Your task to perform on an android device: Show me some nice wallpapers for my laptop Image 0: 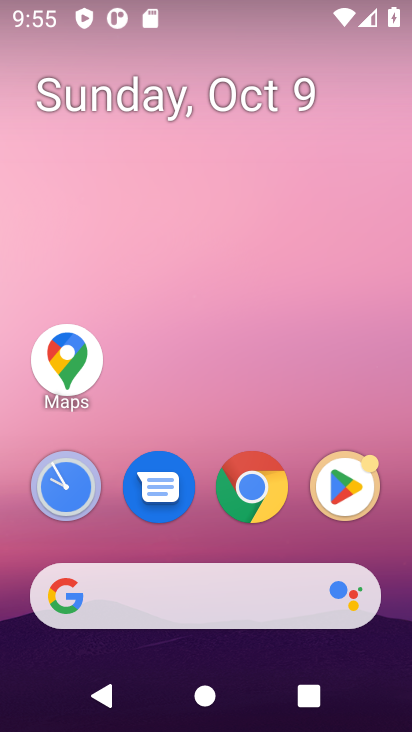
Step 0: drag from (214, 543) to (227, 1)
Your task to perform on an android device: Show me some nice wallpapers for my laptop Image 1: 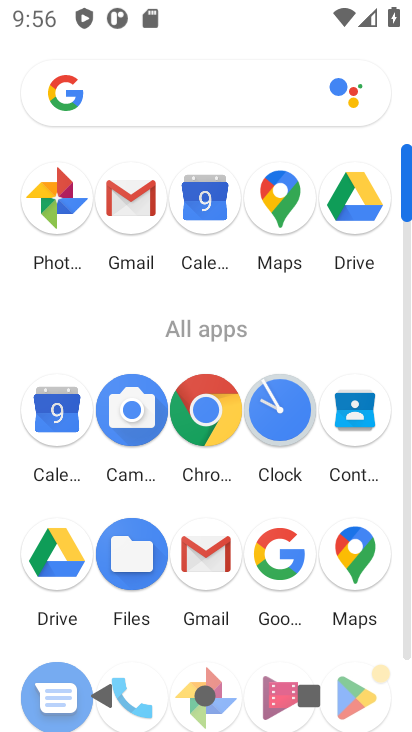
Step 1: click (199, 410)
Your task to perform on an android device: Show me some nice wallpapers for my laptop Image 2: 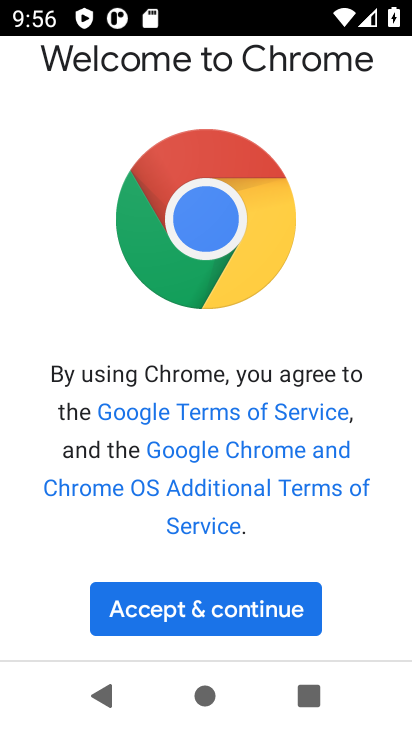
Step 2: click (210, 613)
Your task to perform on an android device: Show me some nice wallpapers for my laptop Image 3: 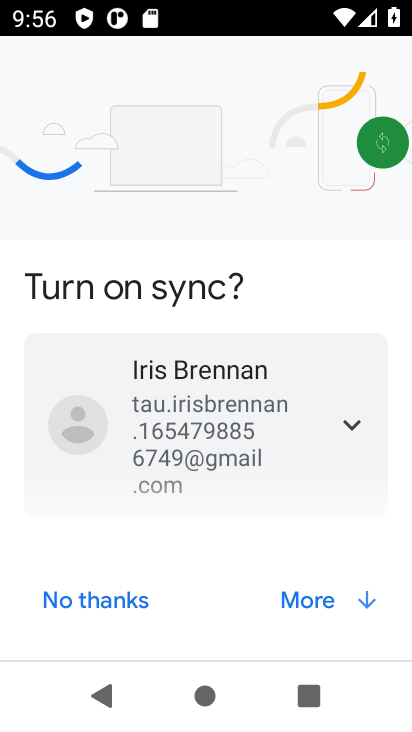
Step 3: click (311, 595)
Your task to perform on an android device: Show me some nice wallpapers for my laptop Image 4: 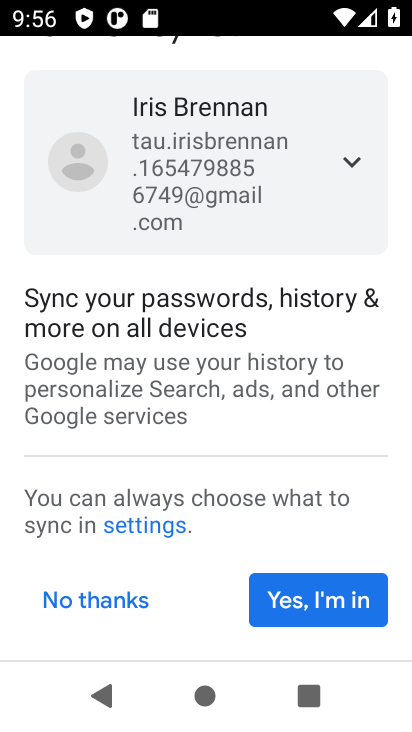
Step 4: click (310, 604)
Your task to perform on an android device: Show me some nice wallpapers for my laptop Image 5: 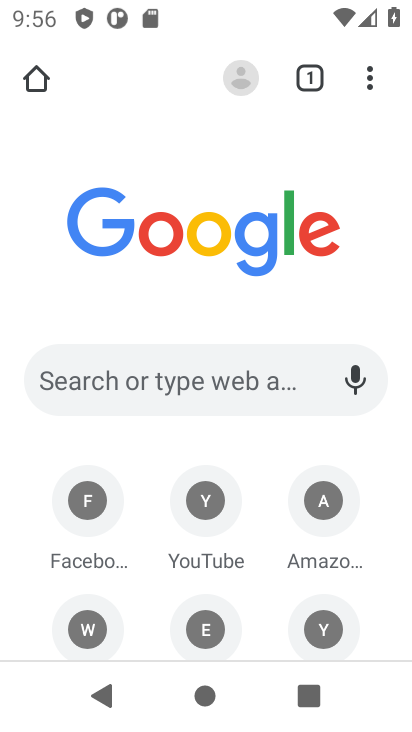
Step 5: click (179, 387)
Your task to perform on an android device: Show me some nice wallpapers for my laptop Image 6: 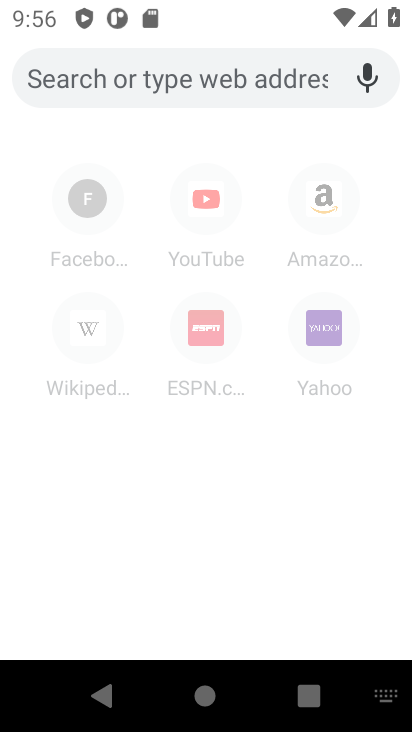
Step 6: click (218, 69)
Your task to perform on an android device: Show me some nice wallpapers for my laptop Image 7: 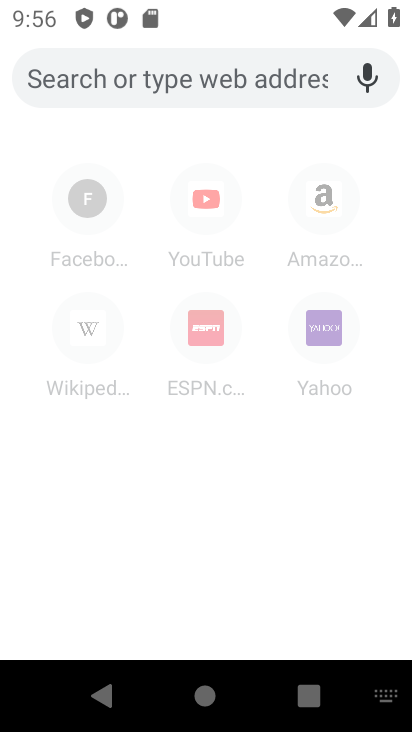
Step 7: type "some nice wallpapers for my laptop"
Your task to perform on an android device: Show me some nice wallpapers for my laptop Image 8: 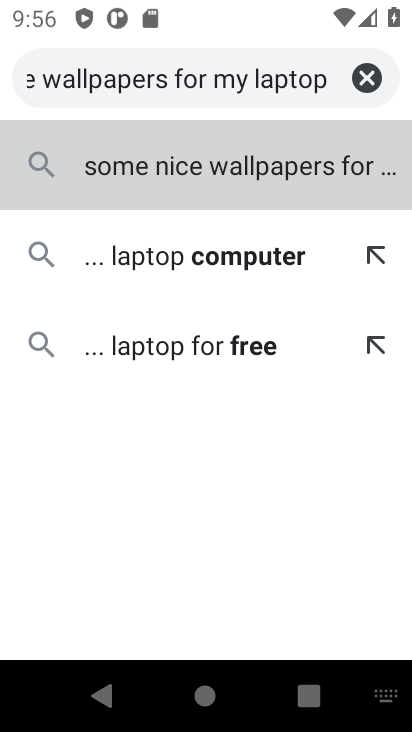
Step 8: type ""
Your task to perform on an android device: Show me some nice wallpapers for my laptop Image 9: 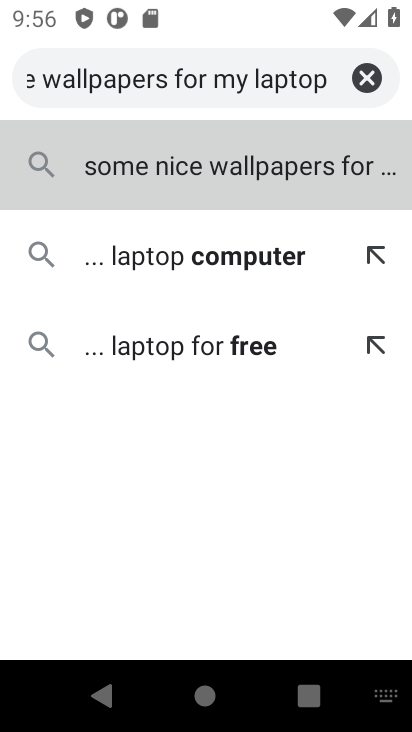
Step 9: click (229, 170)
Your task to perform on an android device: Show me some nice wallpapers for my laptop Image 10: 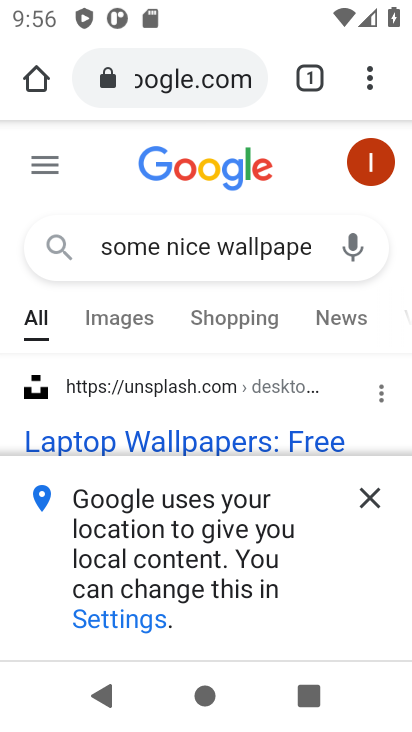
Step 10: click (378, 499)
Your task to perform on an android device: Show me some nice wallpapers for my laptop Image 11: 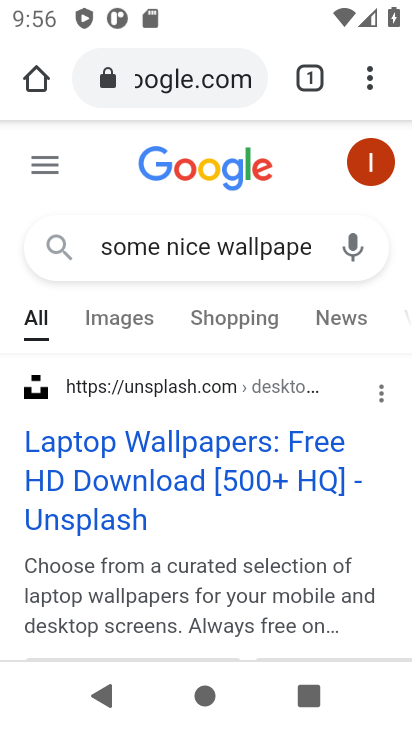
Step 11: click (231, 449)
Your task to perform on an android device: Show me some nice wallpapers for my laptop Image 12: 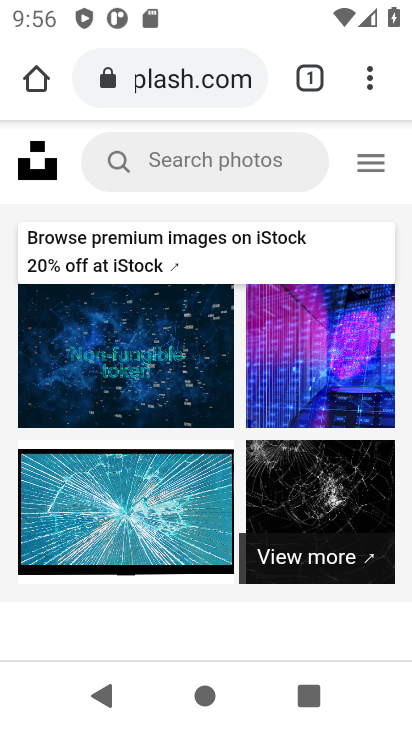
Step 12: task complete